Your task to perform on an android device: turn off notifications in google photos Image 0: 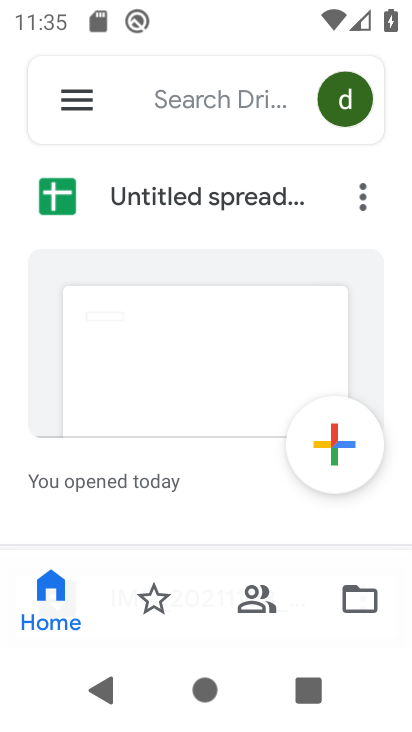
Step 0: press home button
Your task to perform on an android device: turn off notifications in google photos Image 1: 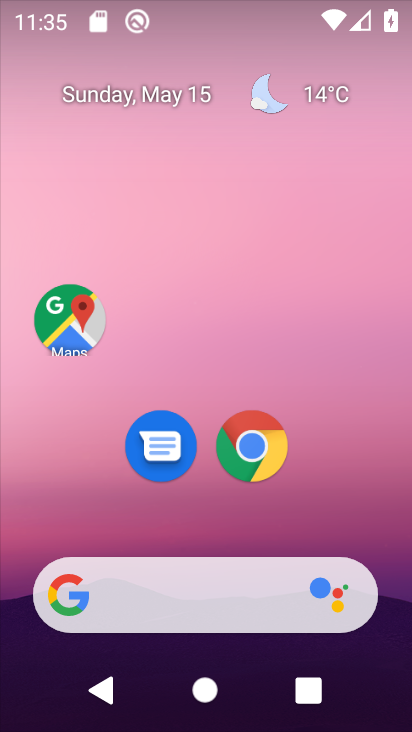
Step 1: drag from (235, 450) to (212, 4)
Your task to perform on an android device: turn off notifications in google photos Image 2: 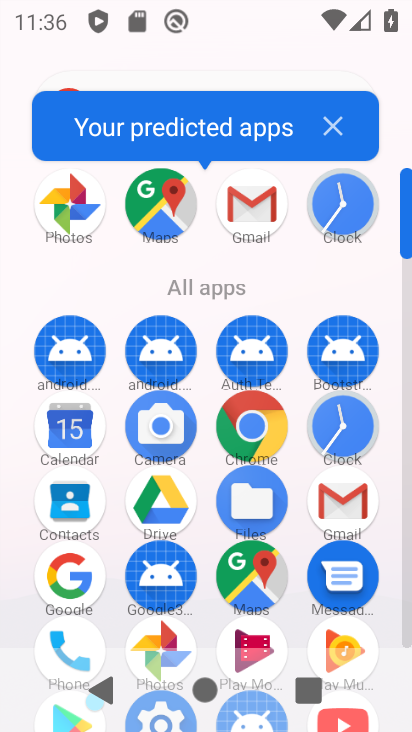
Step 2: drag from (210, 600) to (232, 238)
Your task to perform on an android device: turn off notifications in google photos Image 3: 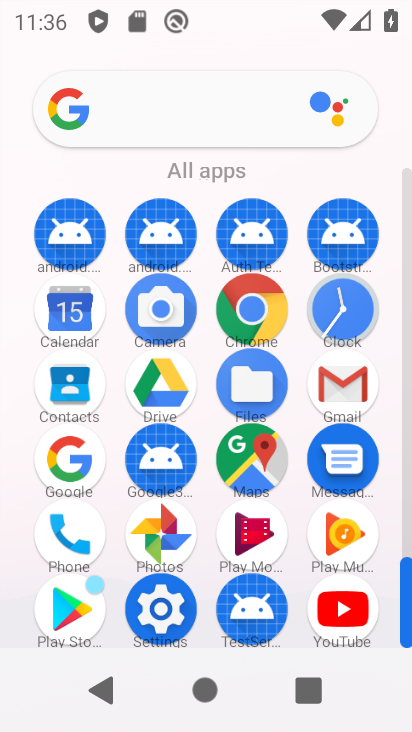
Step 3: click (152, 544)
Your task to perform on an android device: turn off notifications in google photos Image 4: 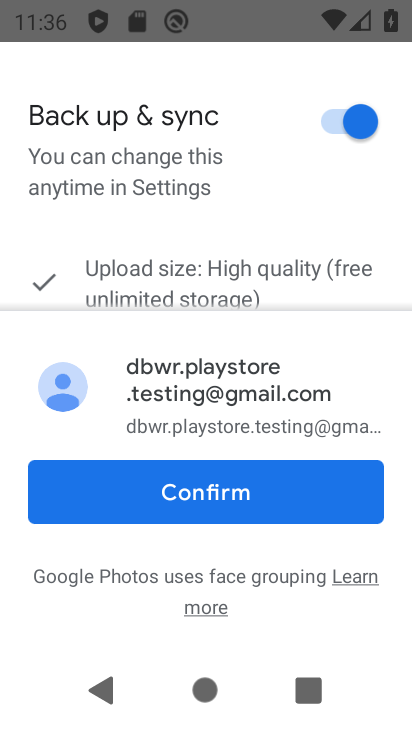
Step 4: click (250, 489)
Your task to perform on an android device: turn off notifications in google photos Image 5: 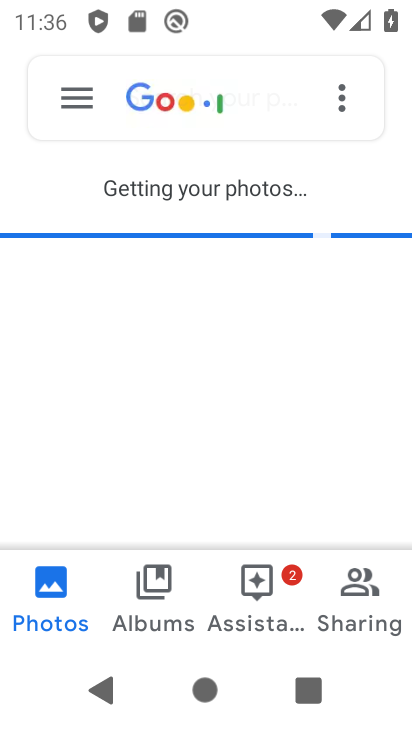
Step 5: click (77, 96)
Your task to perform on an android device: turn off notifications in google photos Image 6: 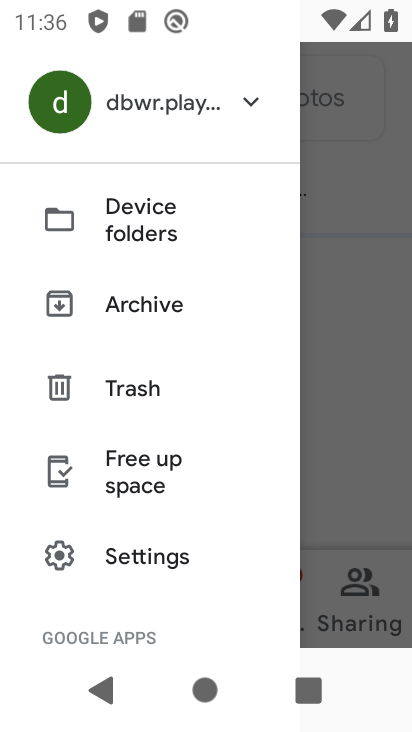
Step 6: click (150, 567)
Your task to perform on an android device: turn off notifications in google photos Image 7: 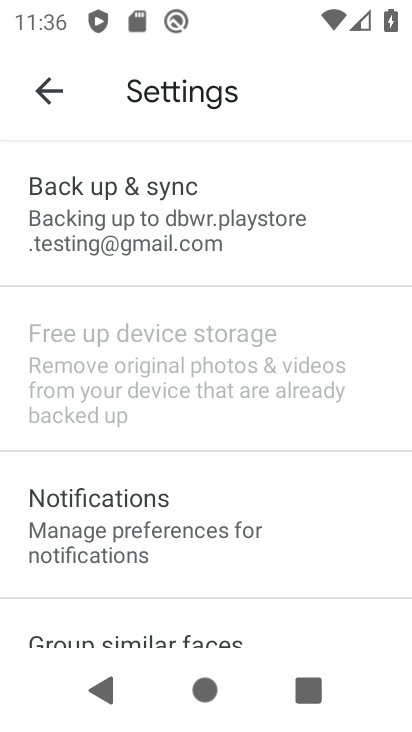
Step 7: click (173, 534)
Your task to perform on an android device: turn off notifications in google photos Image 8: 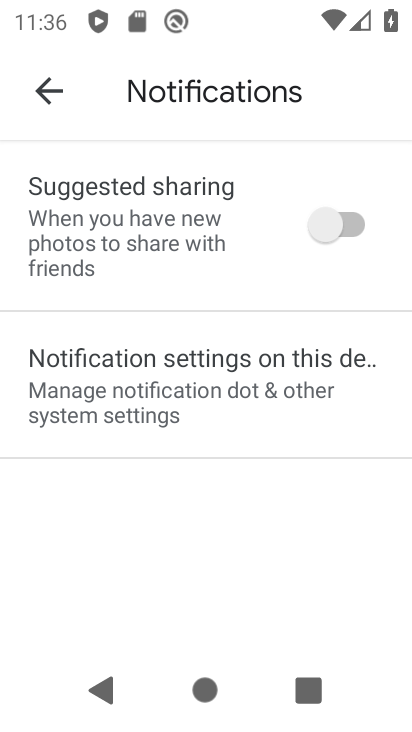
Step 8: click (241, 392)
Your task to perform on an android device: turn off notifications in google photos Image 9: 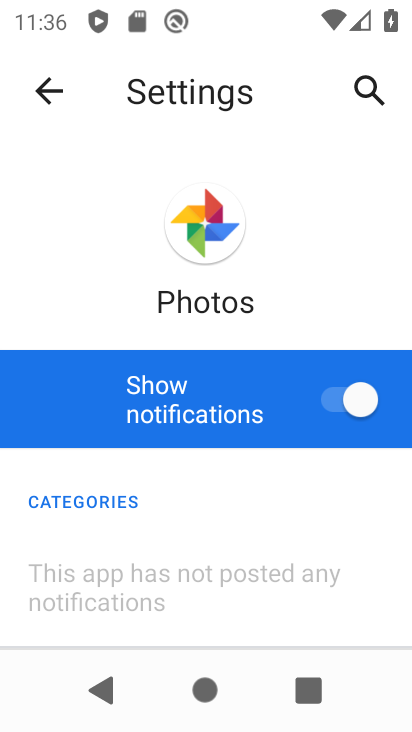
Step 9: click (311, 395)
Your task to perform on an android device: turn off notifications in google photos Image 10: 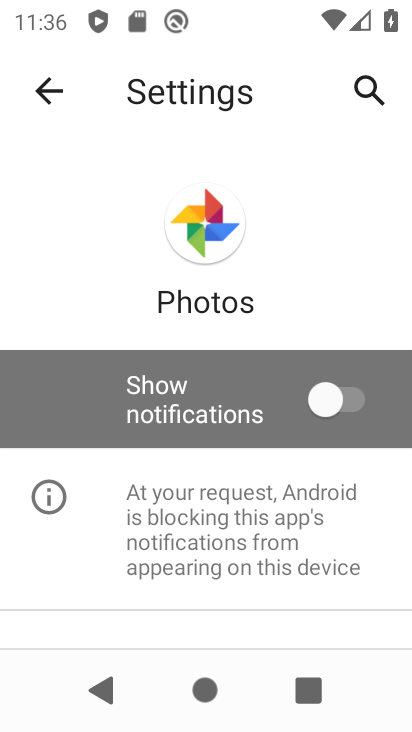
Step 10: task complete